Your task to perform on an android device: move a message to another label in the gmail app Image 0: 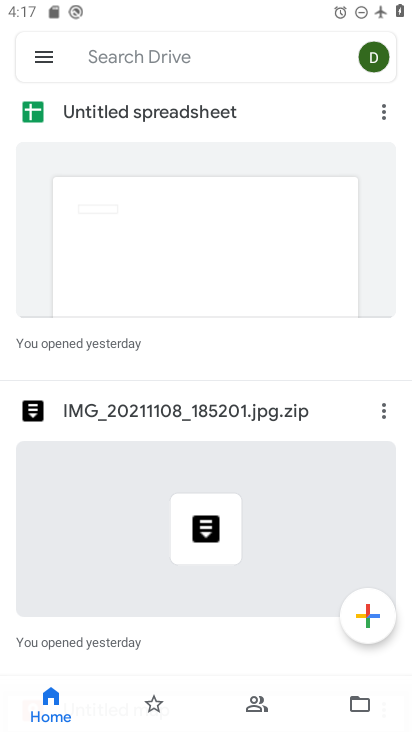
Step 0: press home button
Your task to perform on an android device: move a message to another label in the gmail app Image 1: 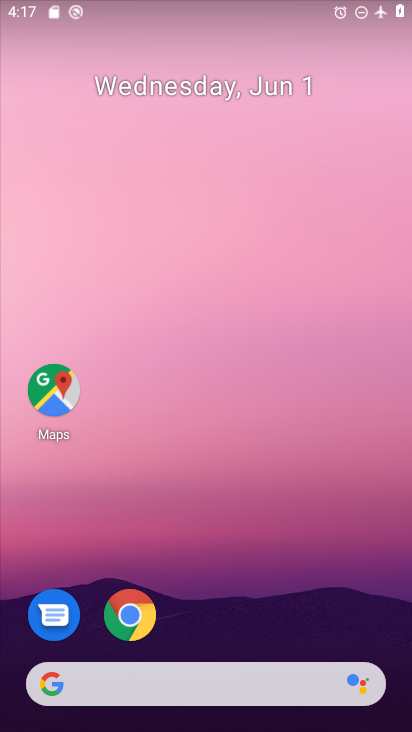
Step 1: drag from (242, 636) to (271, 141)
Your task to perform on an android device: move a message to another label in the gmail app Image 2: 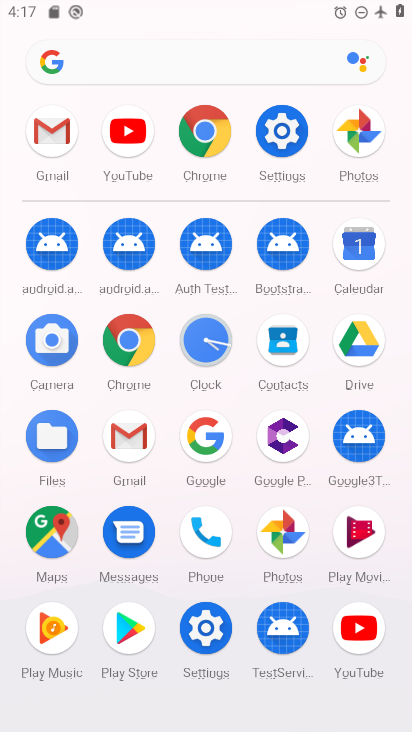
Step 2: click (124, 430)
Your task to perform on an android device: move a message to another label in the gmail app Image 3: 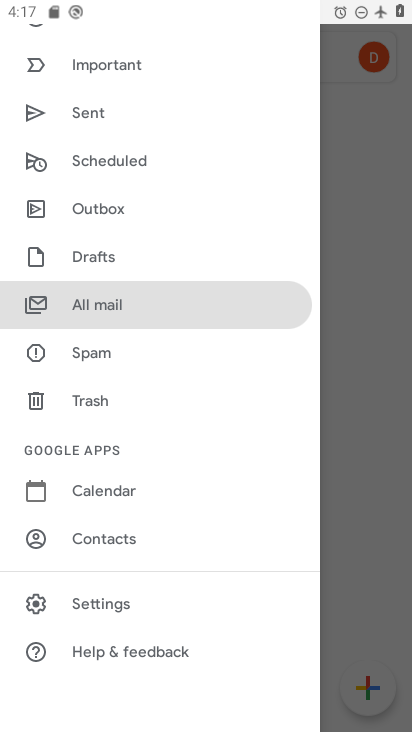
Step 3: click (109, 300)
Your task to perform on an android device: move a message to another label in the gmail app Image 4: 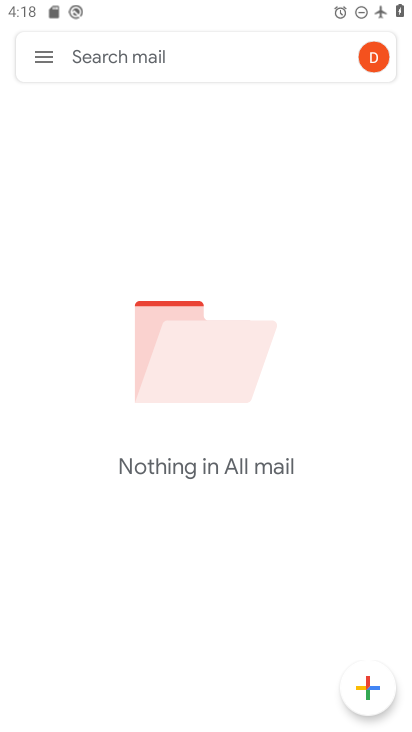
Step 4: task complete